Your task to perform on an android device: Go to Google maps Image 0: 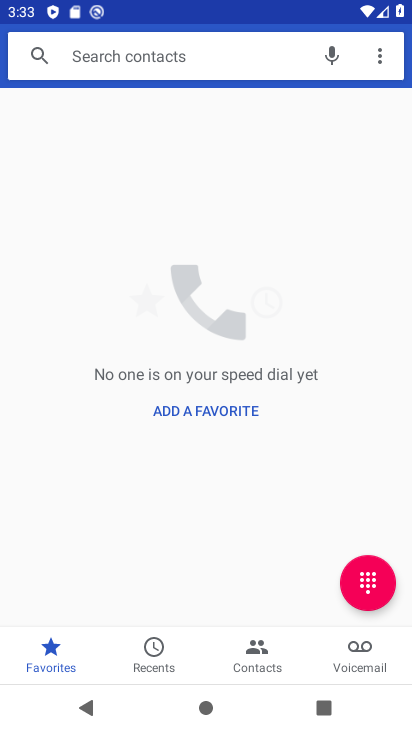
Step 0: press home button
Your task to perform on an android device: Go to Google maps Image 1: 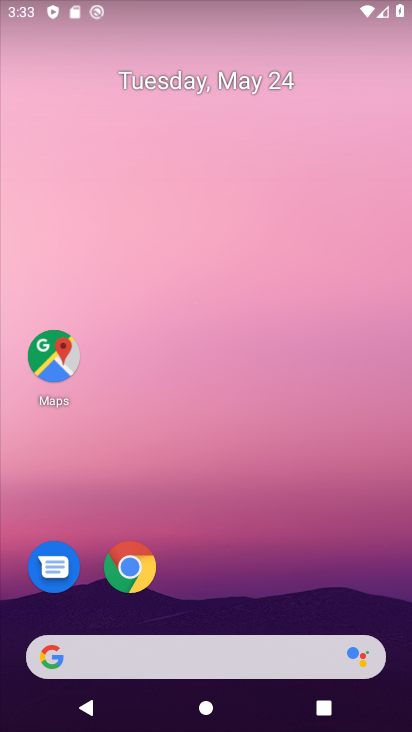
Step 1: click (59, 377)
Your task to perform on an android device: Go to Google maps Image 2: 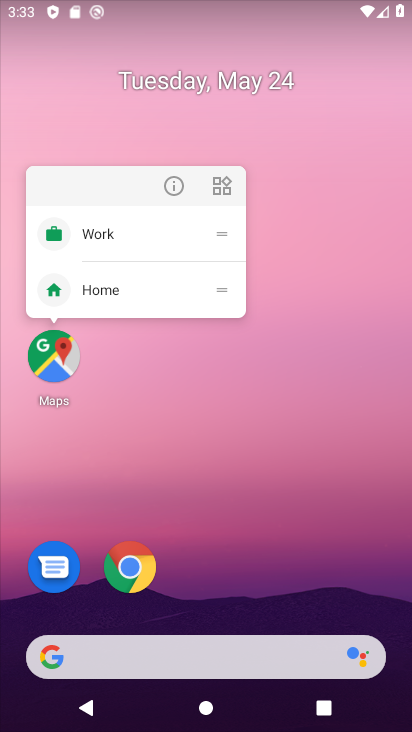
Step 2: click (49, 340)
Your task to perform on an android device: Go to Google maps Image 3: 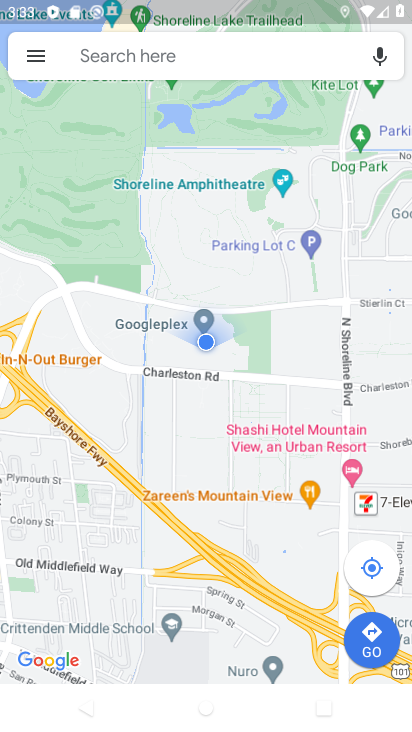
Step 3: task complete